Your task to perform on an android device: Open Maps and search for coffee Image 0: 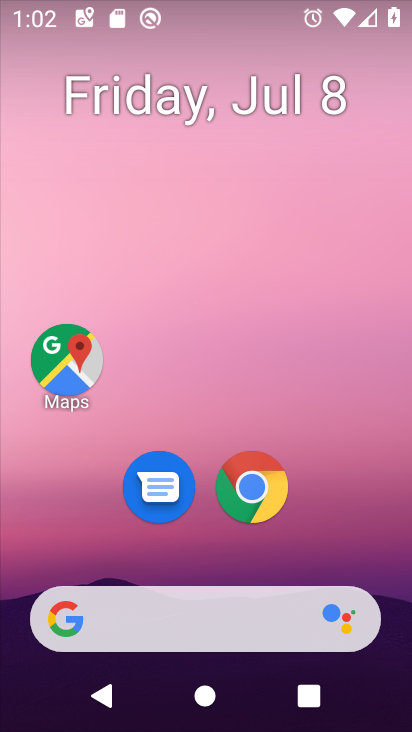
Step 0: drag from (370, 545) to (378, 136)
Your task to perform on an android device: Open Maps and search for coffee Image 1: 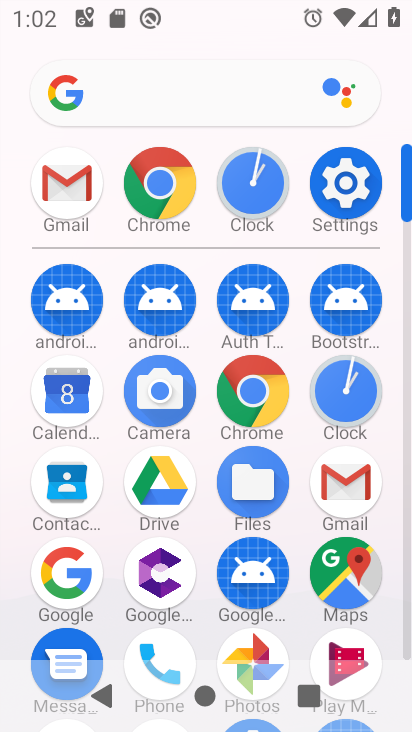
Step 1: click (354, 567)
Your task to perform on an android device: Open Maps and search for coffee Image 2: 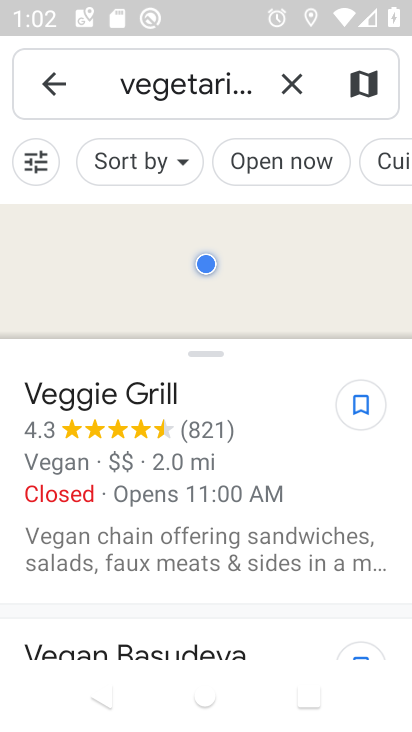
Step 2: press back button
Your task to perform on an android device: Open Maps and search for coffee Image 3: 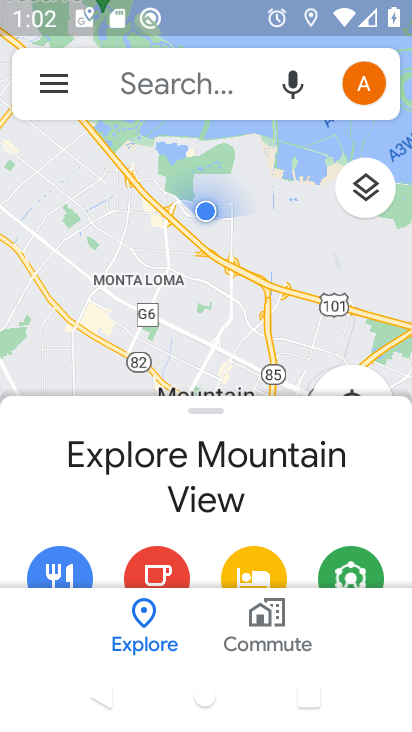
Step 3: click (173, 98)
Your task to perform on an android device: Open Maps and search for coffee Image 4: 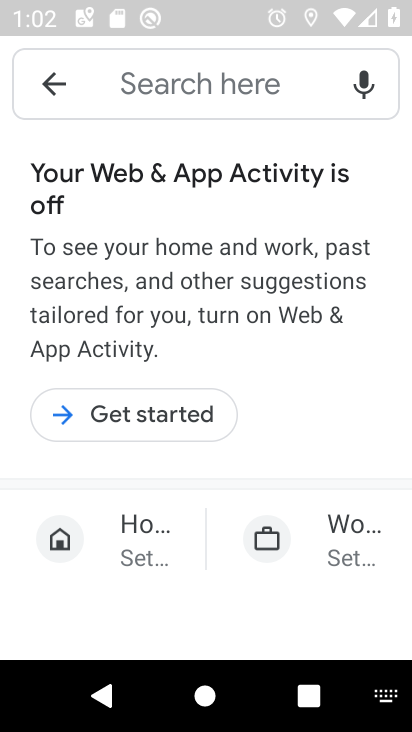
Step 4: type "coffee"
Your task to perform on an android device: Open Maps and search for coffee Image 5: 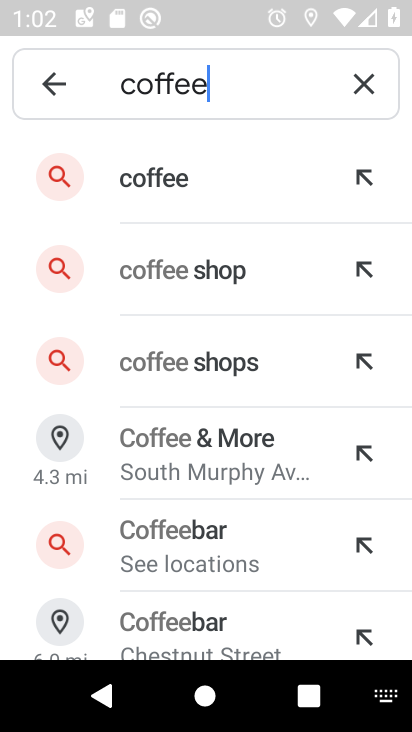
Step 5: click (240, 181)
Your task to perform on an android device: Open Maps and search for coffee Image 6: 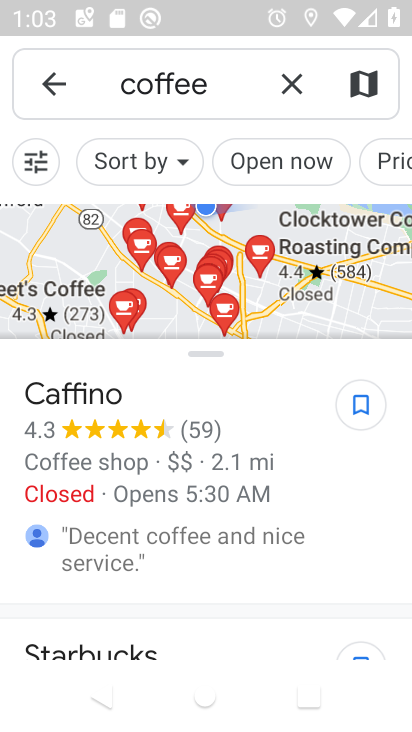
Step 6: task complete